Your task to perform on an android device: Search for sushi restaurants on Maps Image 0: 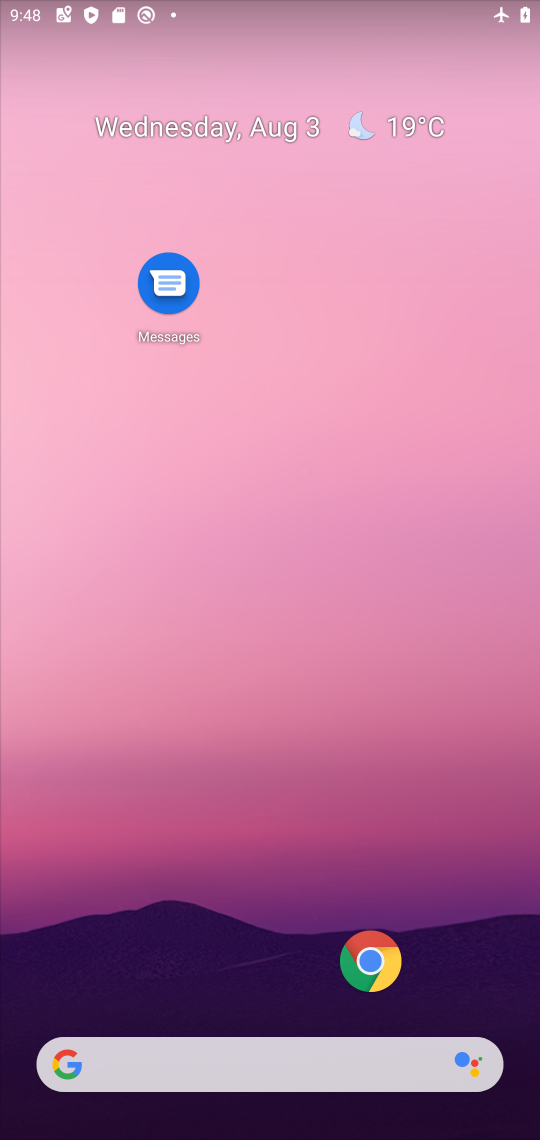
Step 0: drag from (263, 990) to (216, 166)
Your task to perform on an android device: Search for sushi restaurants on Maps Image 1: 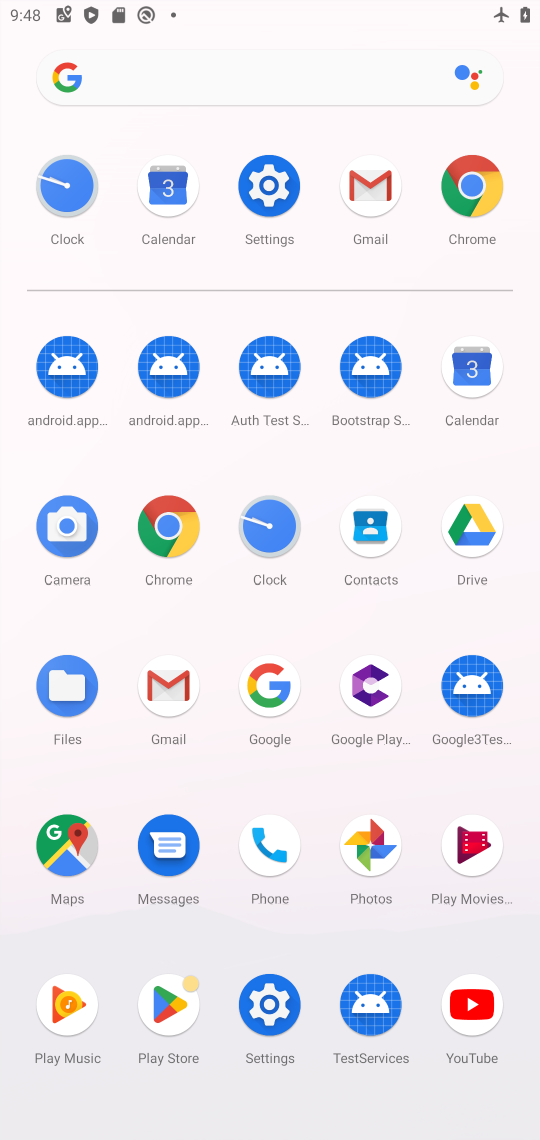
Step 1: click (74, 845)
Your task to perform on an android device: Search for sushi restaurants on Maps Image 2: 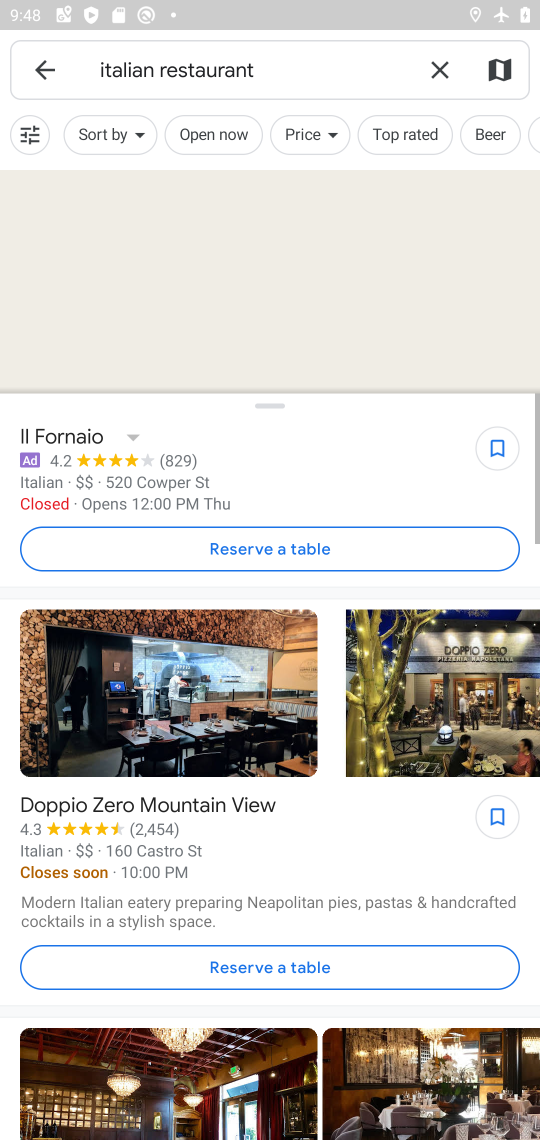
Step 2: click (435, 64)
Your task to perform on an android device: Search for sushi restaurants on Maps Image 3: 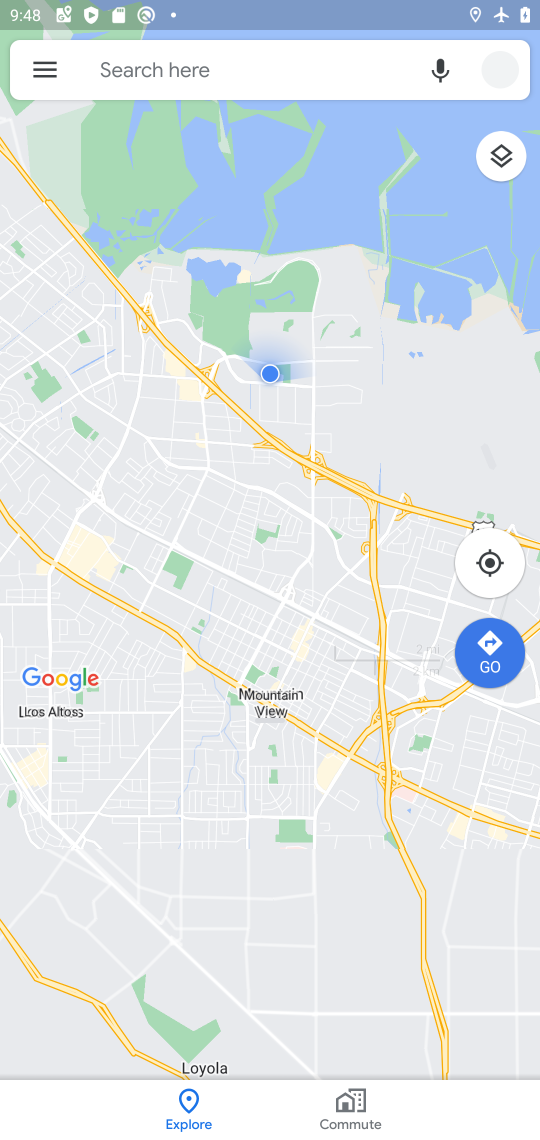
Step 3: click (234, 81)
Your task to perform on an android device: Search for sushi restaurants on Maps Image 4: 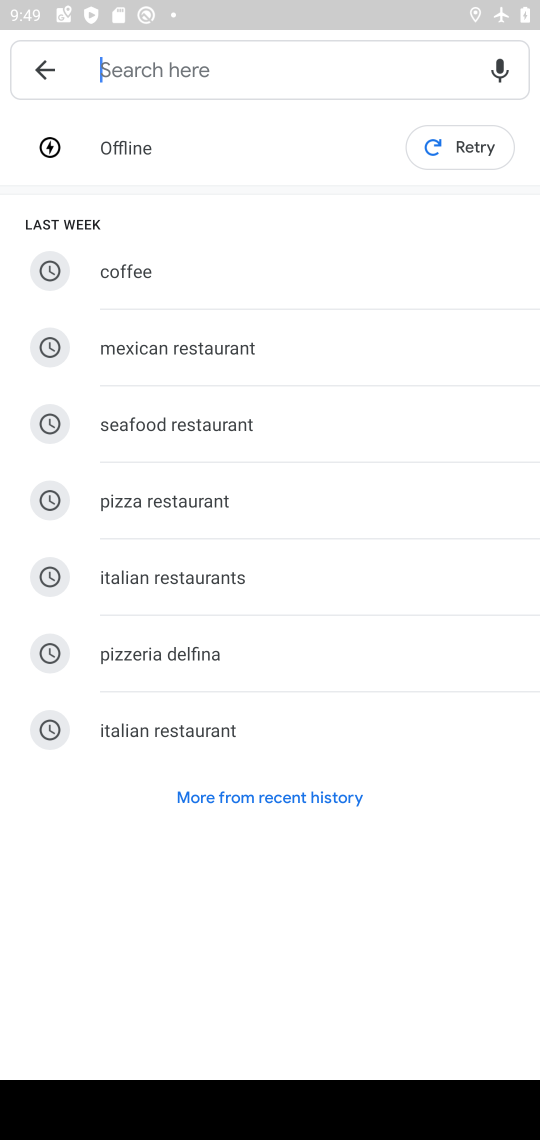
Step 4: type "sushi restaurants"
Your task to perform on an android device: Search for sushi restaurants on Maps Image 5: 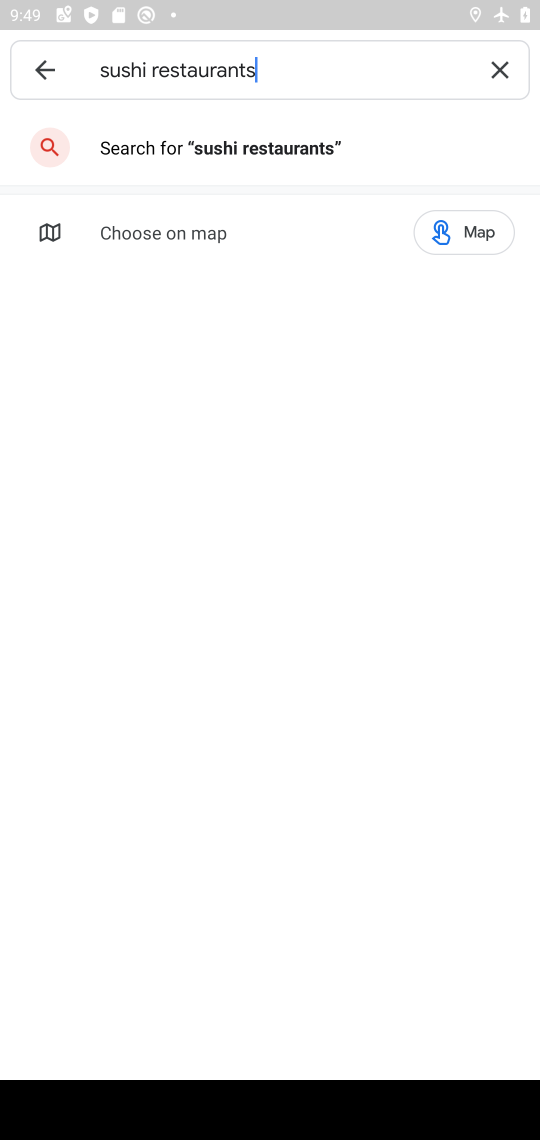
Step 5: type ""
Your task to perform on an android device: Search for sushi restaurants on Maps Image 6: 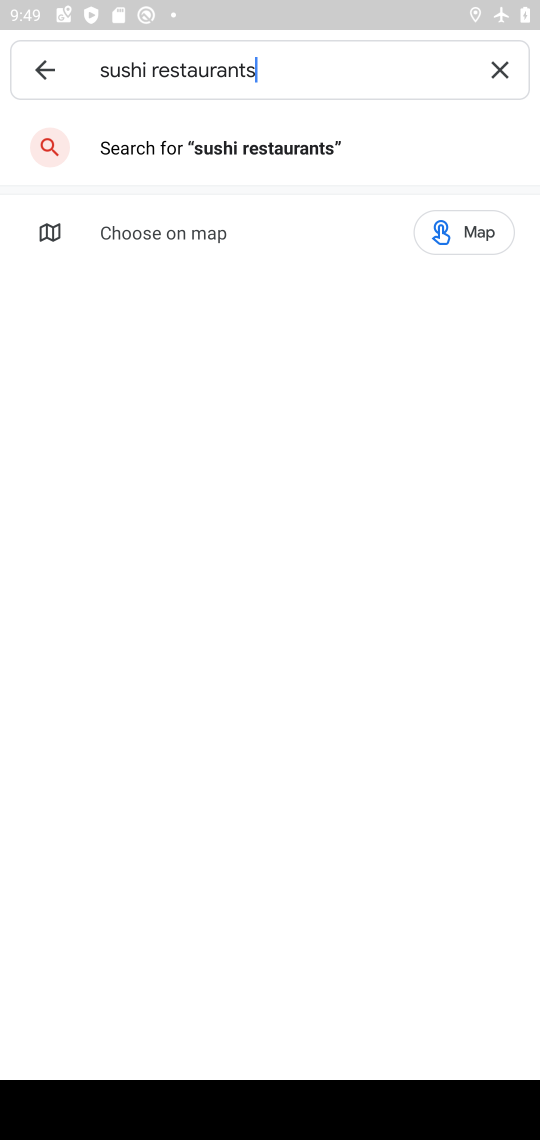
Step 6: click (144, 148)
Your task to perform on an android device: Search for sushi restaurants on Maps Image 7: 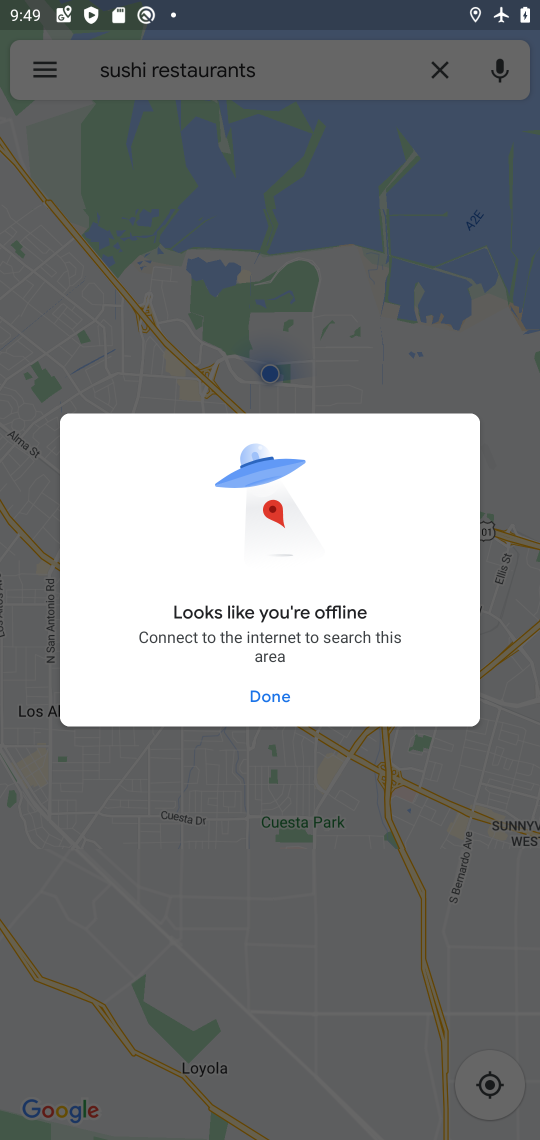
Step 7: task complete